Your task to perform on an android device: Set the phone to "Do not disturb". Image 0: 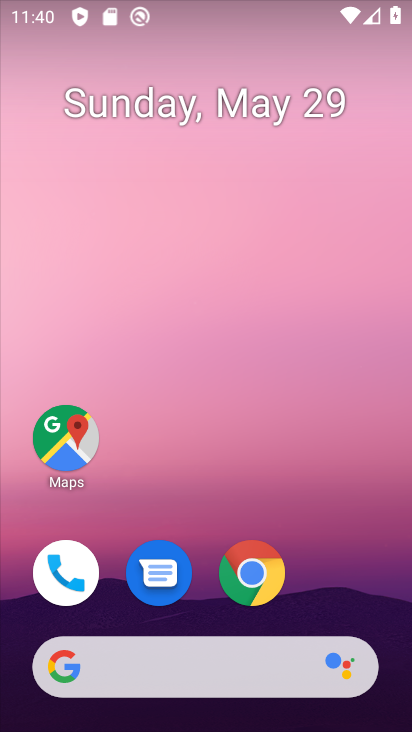
Step 0: drag from (188, 3) to (215, 313)
Your task to perform on an android device: Set the phone to "Do not disturb". Image 1: 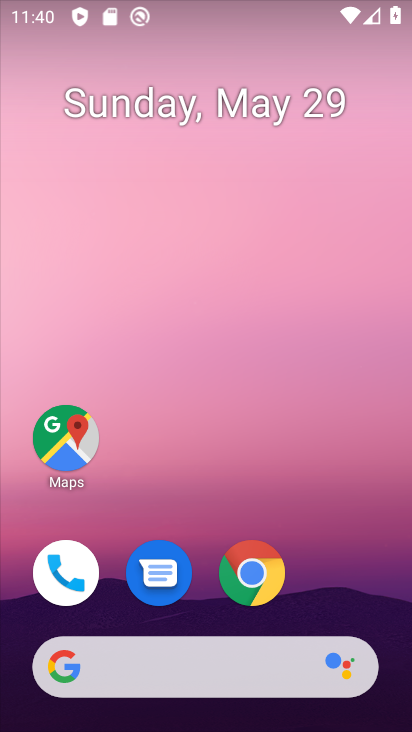
Step 1: drag from (202, 0) to (141, 731)
Your task to perform on an android device: Set the phone to "Do not disturb". Image 2: 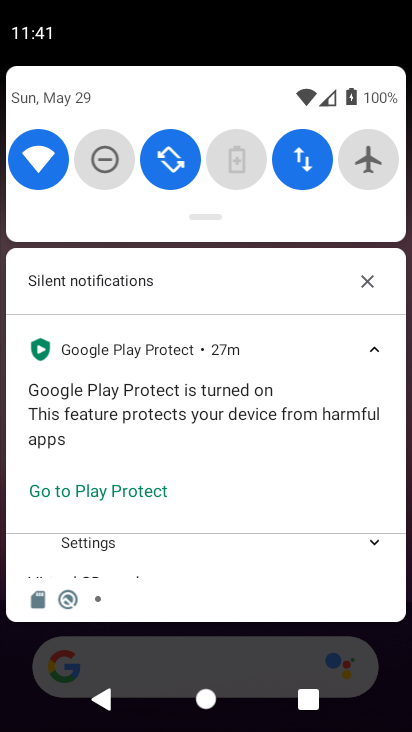
Step 2: drag from (202, 250) to (221, 694)
Your task to perform on an android device: Set the phone to "Do not disturb". Image 3: 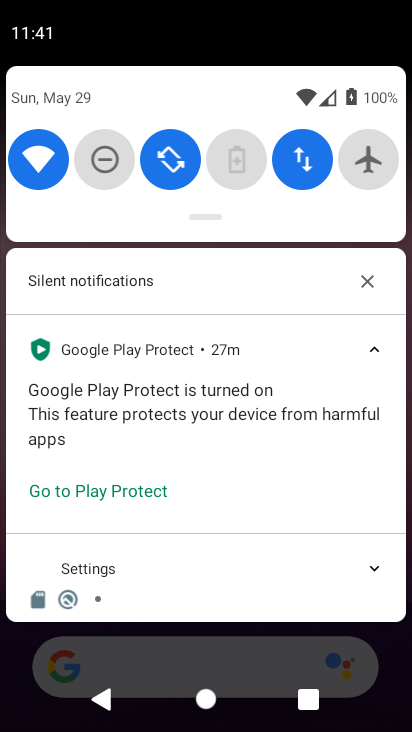
Step 3: click (95, 158)
Your task to perform on an android device: Set the phone to "Do not disturb". Image 4: 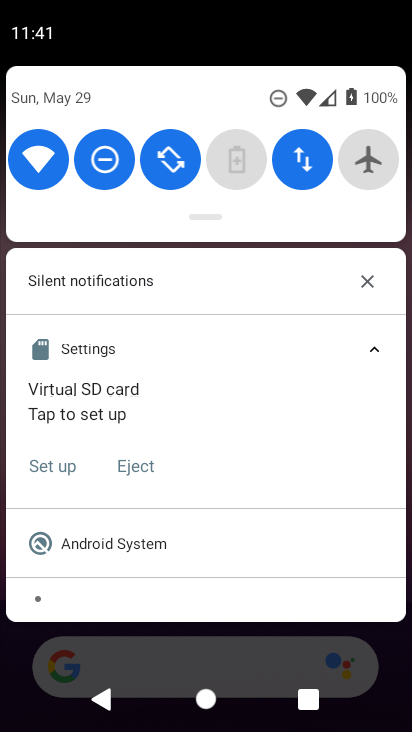
Step 4: task complete